Your task to perform on an android device: Search for seafood restaurants on Google Maps Image 0: 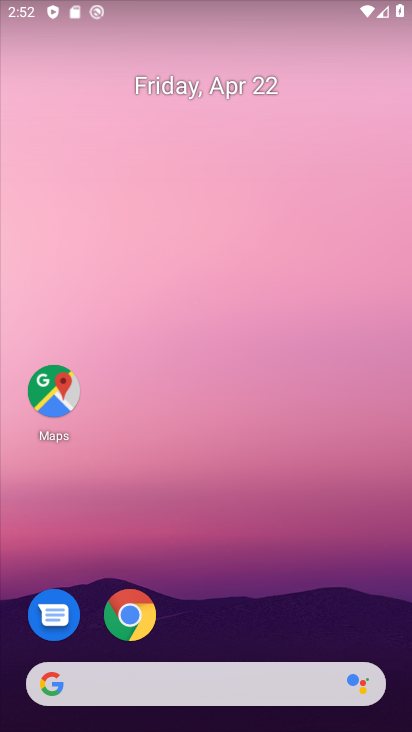
Step 0: click (51, 394)
Your task to perform on an android device: Search for seafood restaurants on Google Maps Image 1: 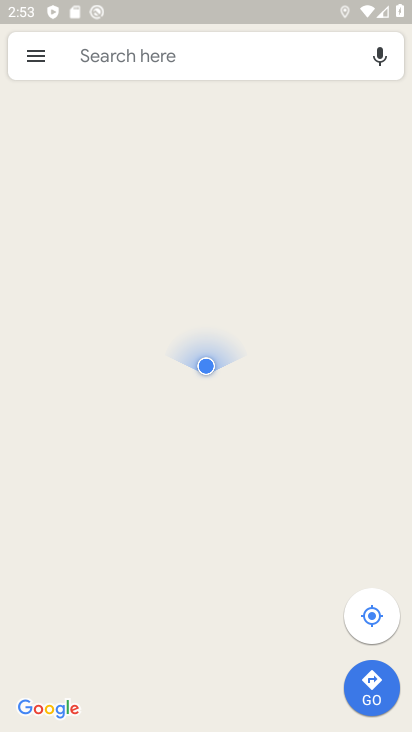
Step 1: click (76, 58)
Your task to perform on an android device: Search for seafood restaurants on Google Maps Image 2: 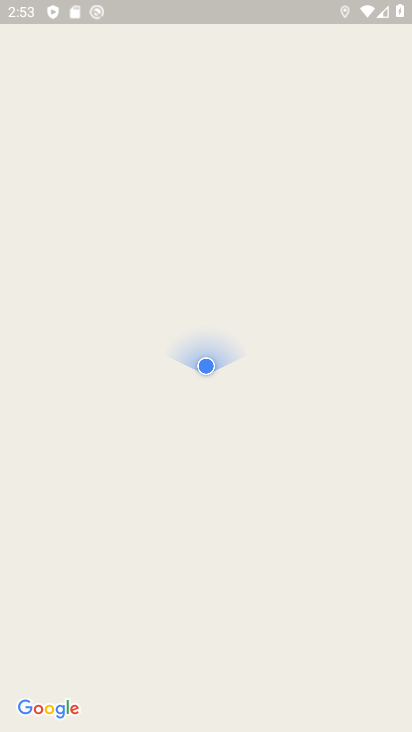
Step 2: click (126, 34)
Your task to perform on an android device: Search for seafood restaurants on Google Maps Image 3: 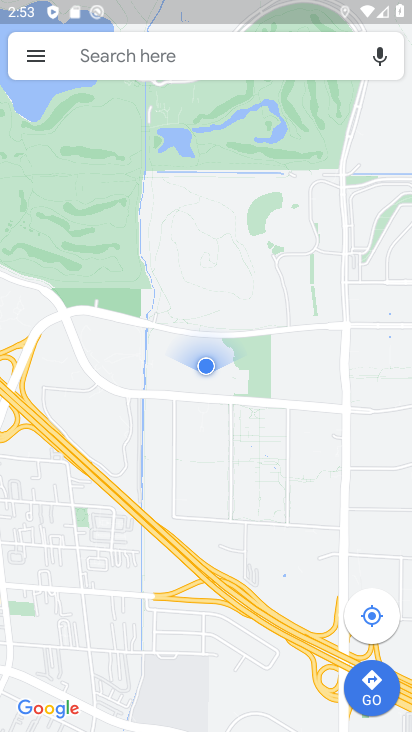
Step 3: click (165, 57)
Your task to perform on an android device: Search for seafood restaurants on Google Maps Image 4: 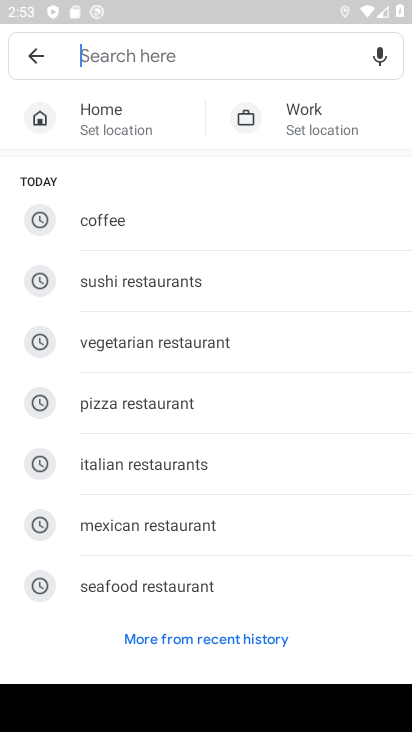
Step 4: type "seafood restaurant"
Your task to perform on an android device: Search for seafood restaurants on Google Maps Image 5: 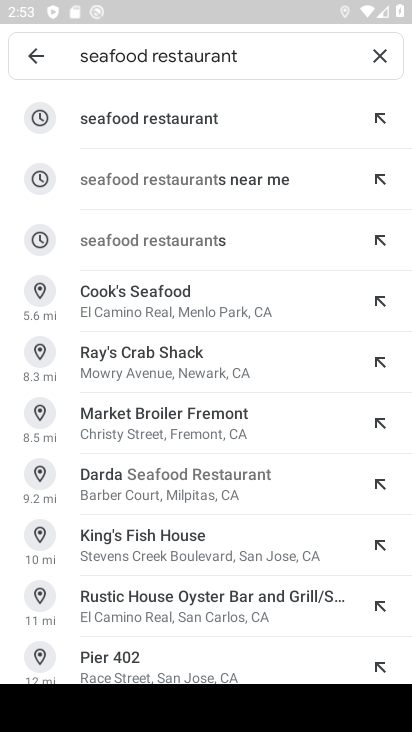
Step 5: click (139, 117)
Your task to perform on an android device: Search for seafood restaurants on Google Maps Image 6: 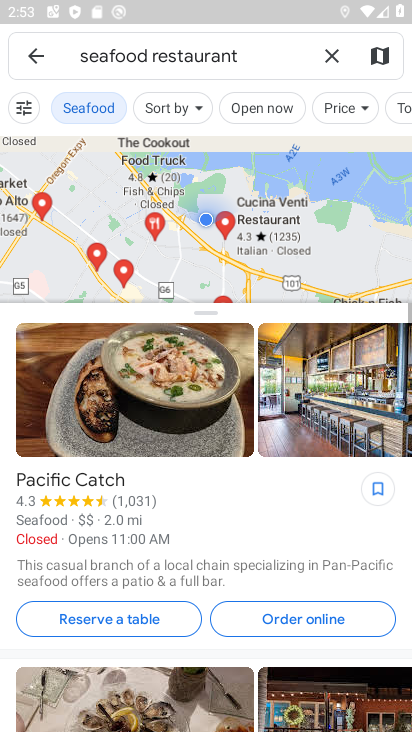
Step 6: drag from (217, 438) to (217, 292)
Your task to perform on an android device: Search for seafood restaurants on Google Maps Image 7: 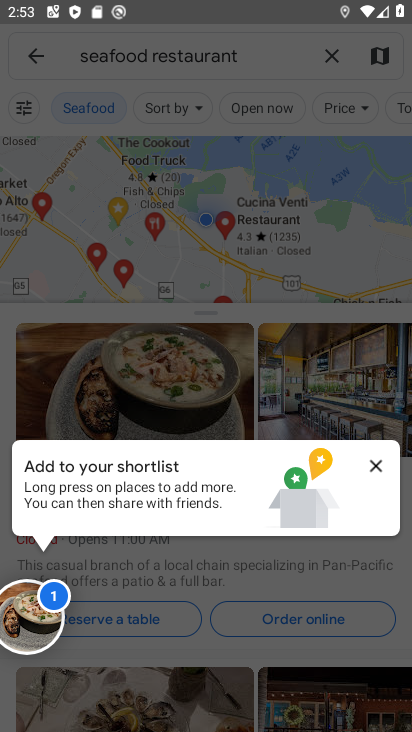
Step 7: click (372, 465)
Your task to perform on an android device: Search for seafood restaurants on Google Maps Image 8: 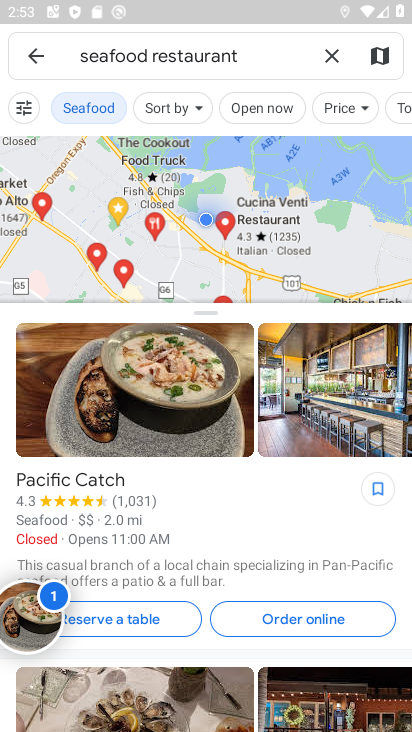
Step 8: task complete